Your task to perform on an android device: Open the map Image 0: 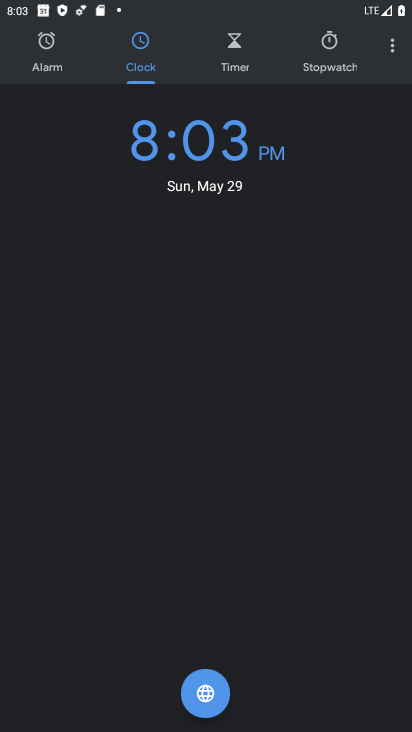
Step 0: press home button
Your task to perform on an android device: Open the map Image 1: 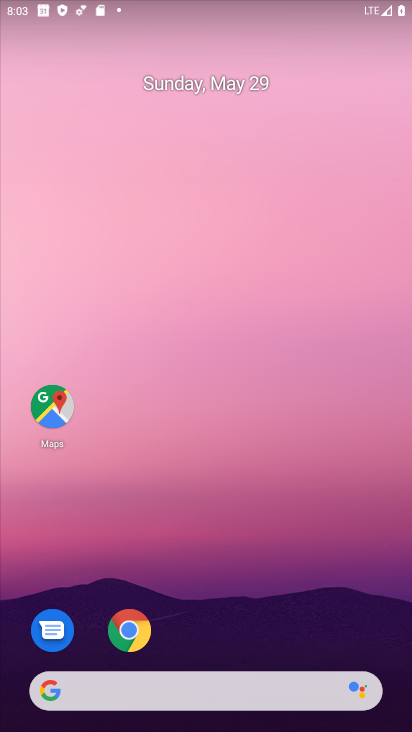
Step 1: drag from (238, 661) to (291, 80)
Your task to perform on an android device: Open the map Image 2: 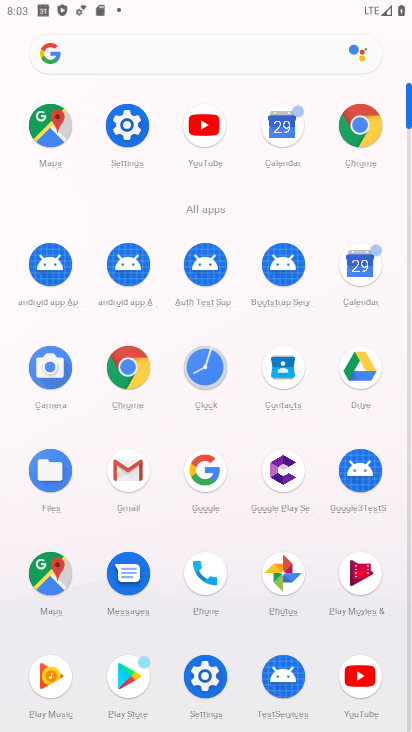
Step 2: click (43, 150)
Your task to perform on an android device: Open the map Image 3: 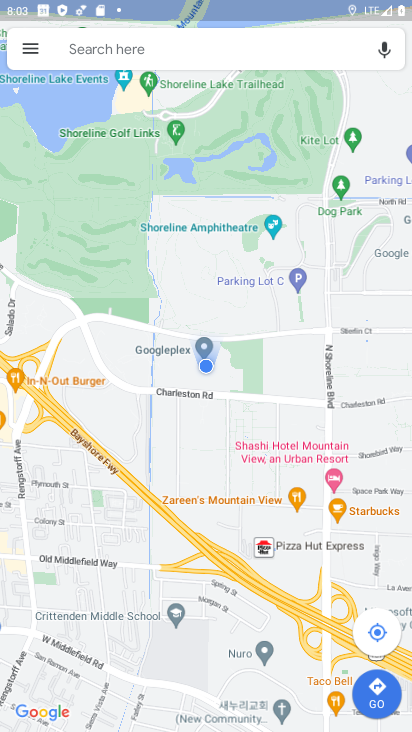
Step 3: task complete